Your task to perform on an android device: Open settings on Google Maps Image 0: 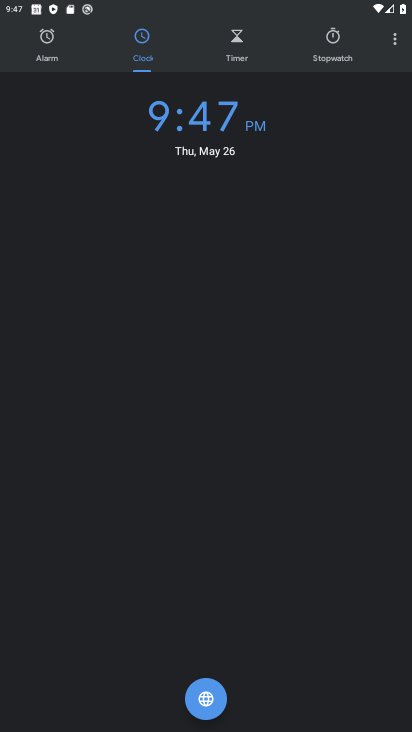
Step 0: press back button
Your task to perform on an android device: Open settings on Google Maps Image 1: 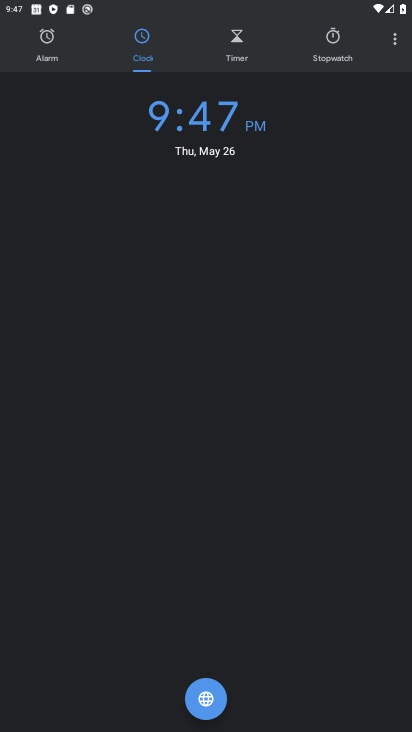
Step 1: press back button
Your task to perform on an android device: Open settings on Google Maps Image 2: 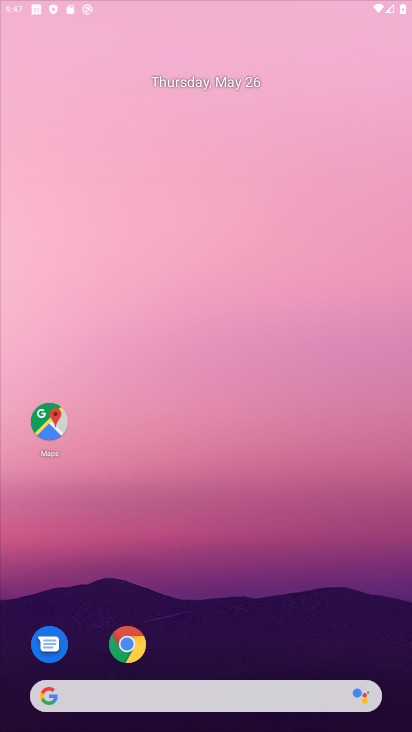
Step 2: press back button
Your task to perform on an android device: Open settings on Google Maps Image 3: 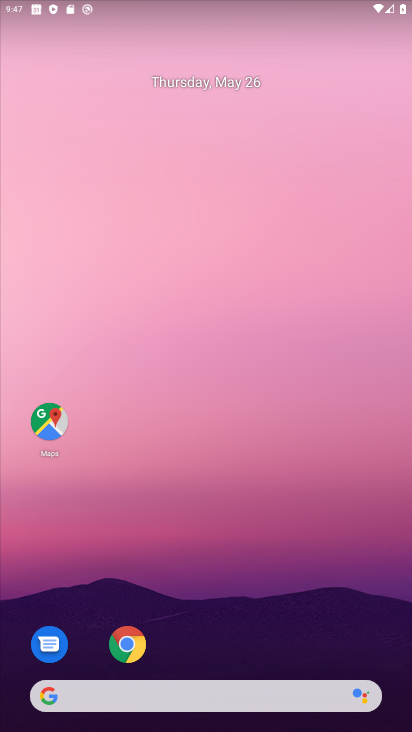
Step 3: drag from (302, 672) to (283, 44)
Your task to perform on an android device: Open settings on Google Maps Image 4: 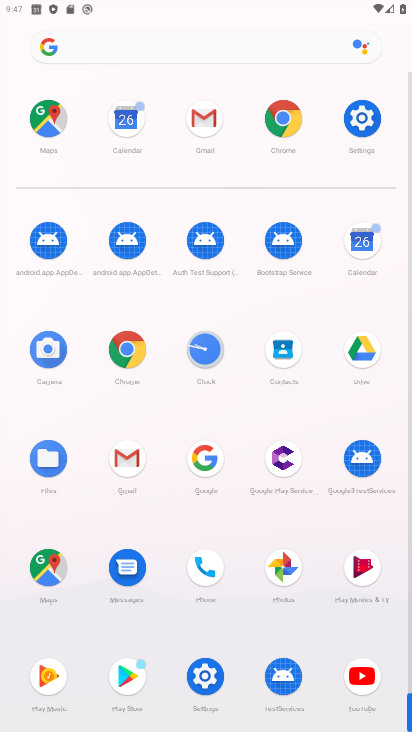
Step 4: click (51, 556)
Your task to perform on an android device: Open settings on Google Maps Image 5: 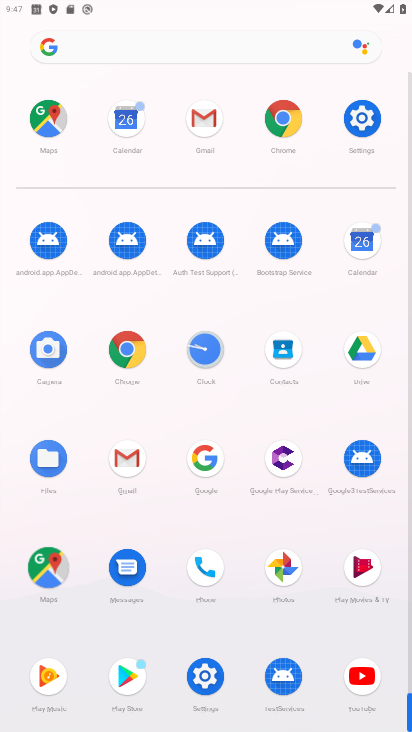
Step 5: click (53, 559)
Your task to perform on an android device: Open settings on Google Maps Image 6: 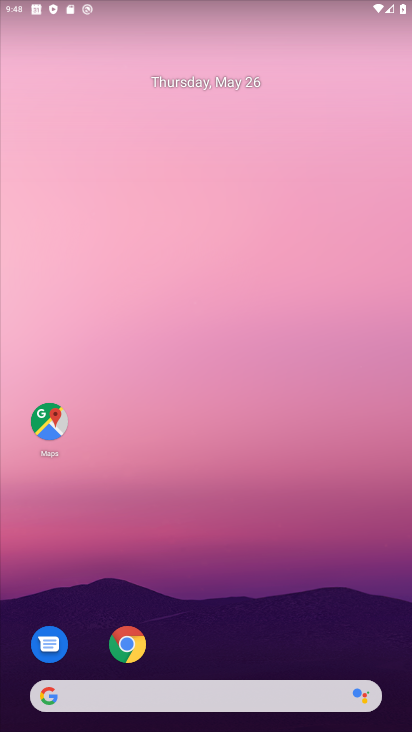
Step 6: drag from (265, 656) to (211, 258)
Your task to perform on an android device: Open settings on Google Maps Image 7: 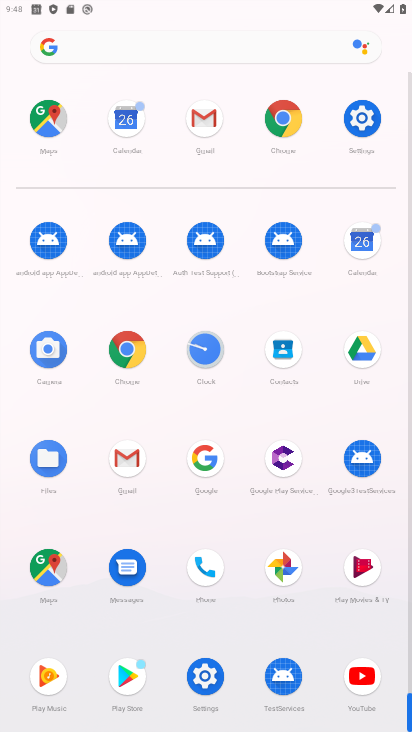
Step 7: click (46, 108)
Your task to perform on an android device: Open settings on Google Maps Image 8: 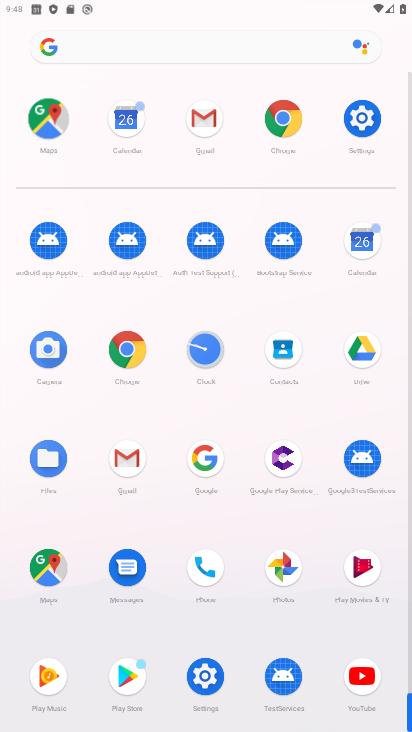
Step 8: click (47, 121)
Your task to perform on an android device: Open settings on Google Maps Image 9: 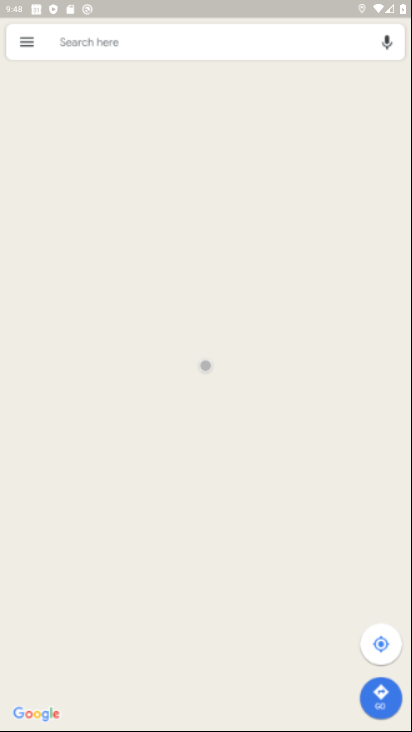
Step 9: click (58, 149)
Your task to perform on an android device: Open settings on Google Maps Image 10: 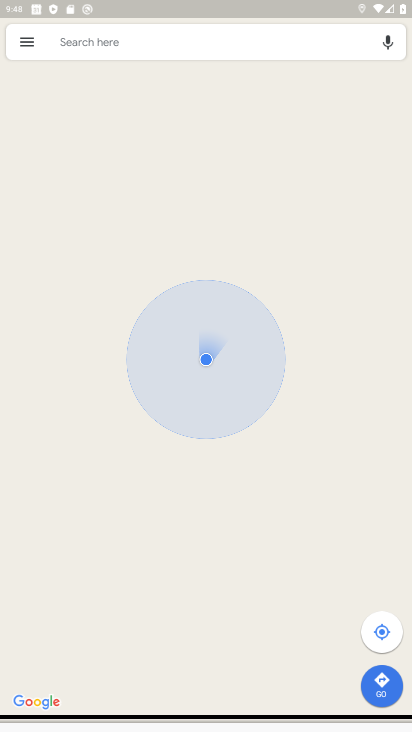
Step 10: drag from (24, 47) to (94, 147)
Your task to perform on an android device: Open settings on Google Maps Image 11: 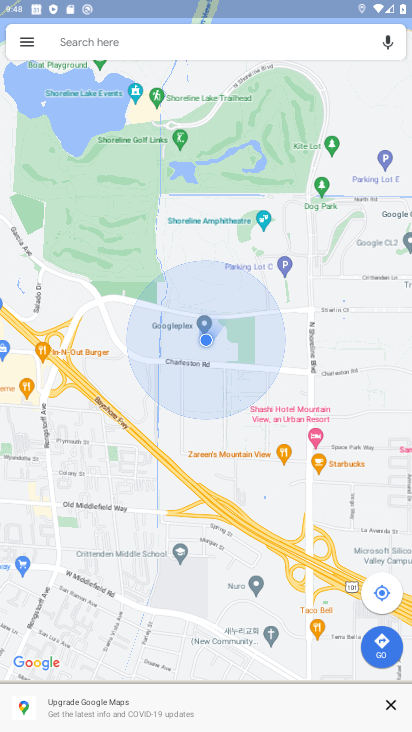
Step 11: click (27, 45)
Your task to perform on an android device: Open settings on Google Maps Image 12: 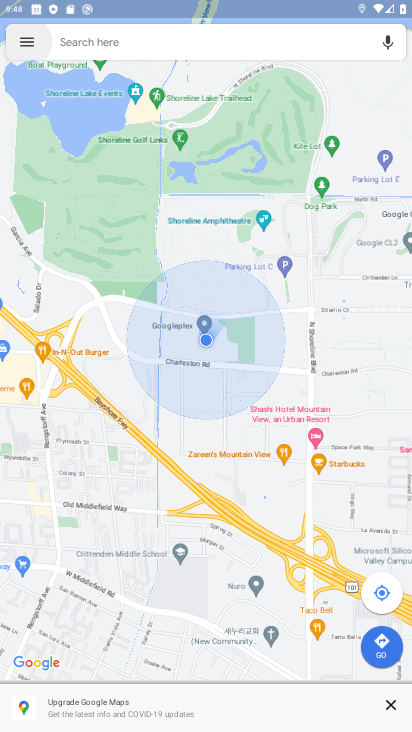
Step 12: click (37, 43)
Your task to perform on an android device: Open settings on Google Maps Image 13: 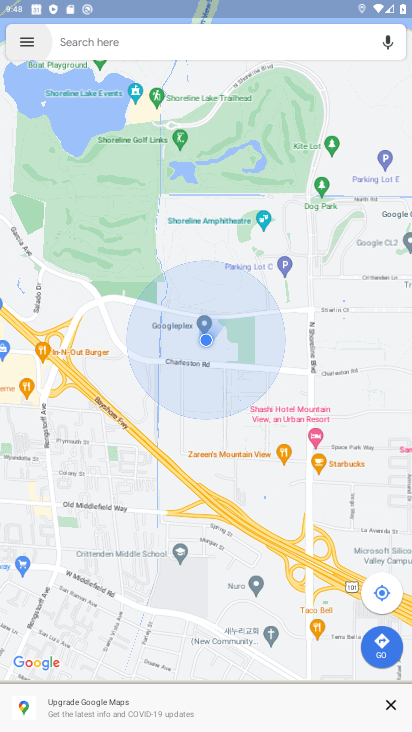
Step 13: click (33, 53)
Your task to perform on an android device: Open settings on Google Maps Image 14: 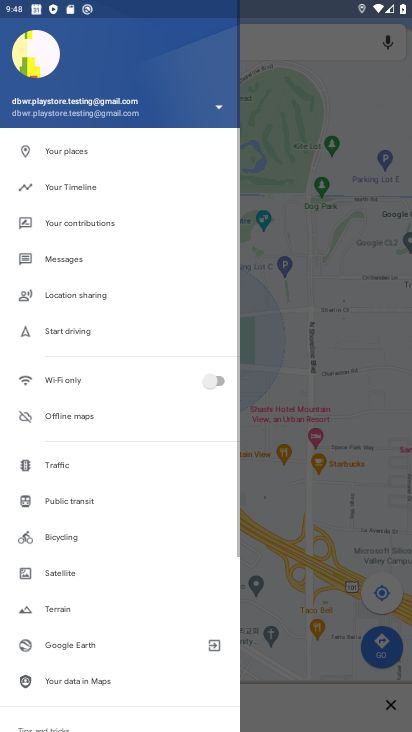
Step 14: click (22, 60)
Your task to perform on an android device: Open settings on Google Maps Image 15: 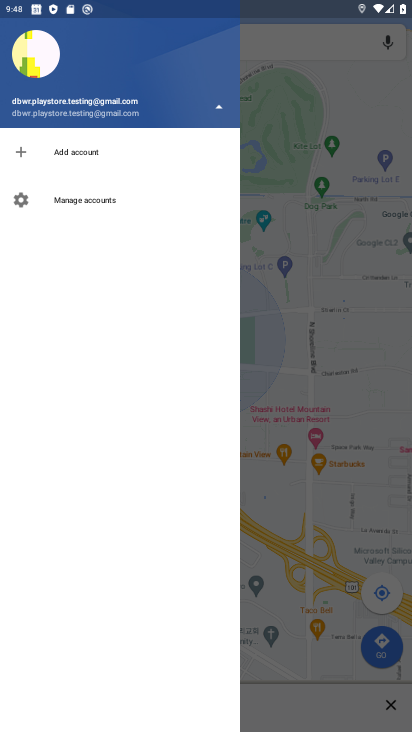
Step 15: click (215, 108)
Your task to perform on an android device: Open settings on Google Maps Image 16: 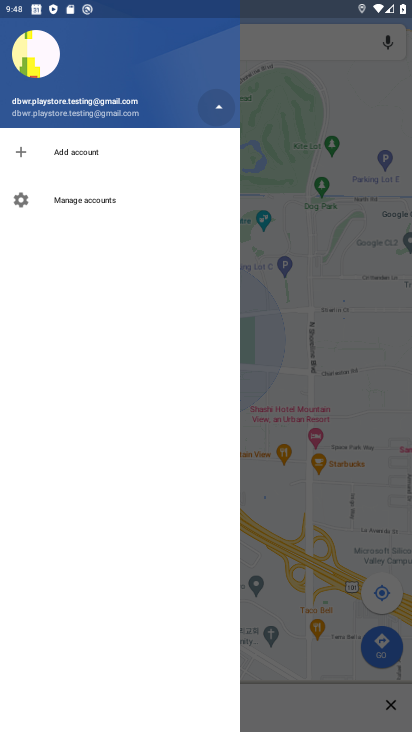
Step 16: click (216, 108)
Your task to perform on an android device: Open settings on Google Maps Image 17: 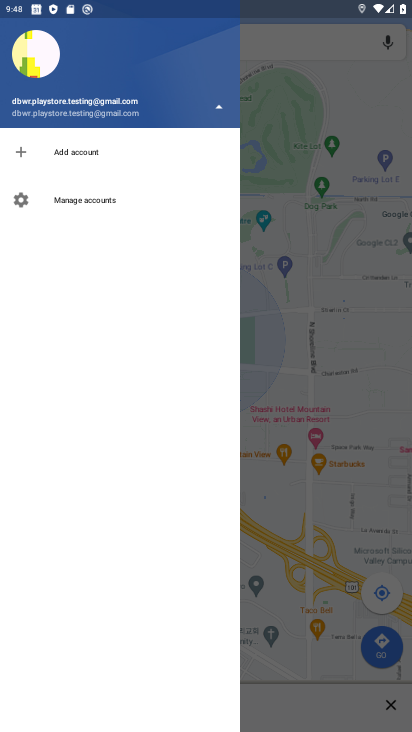
Step 17: click (217, 104)
Your task to perform on an android device: Open settings on Google Maps Image 18: 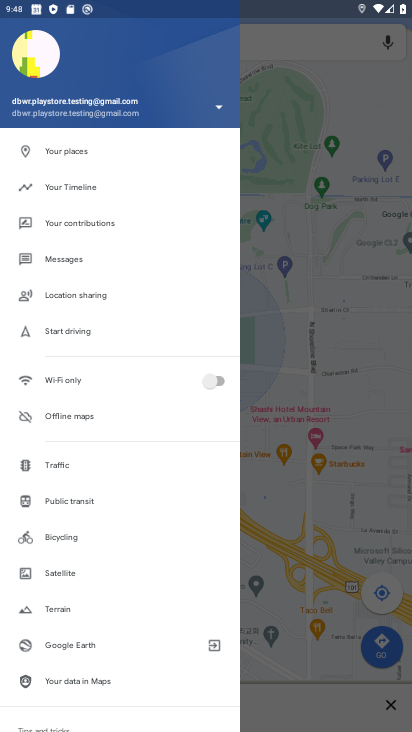
Step 18: click (87, 190)
Your task to perform on an android device: Open settings on Google Maps Image 19: 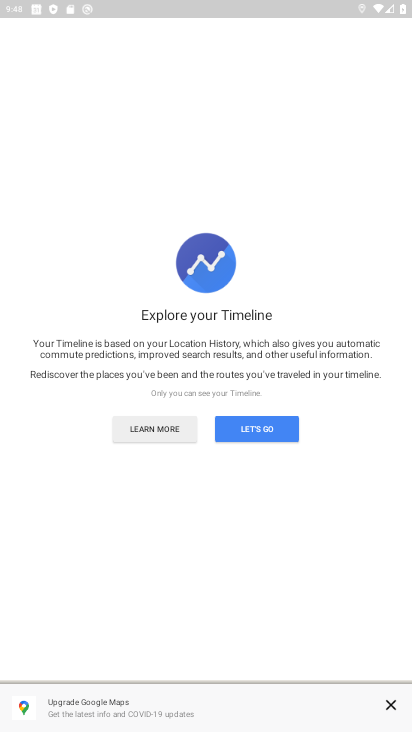
Step 19: click (273, 435)
Your task to perform on an android device: Open settings on Google Maps Image 20: 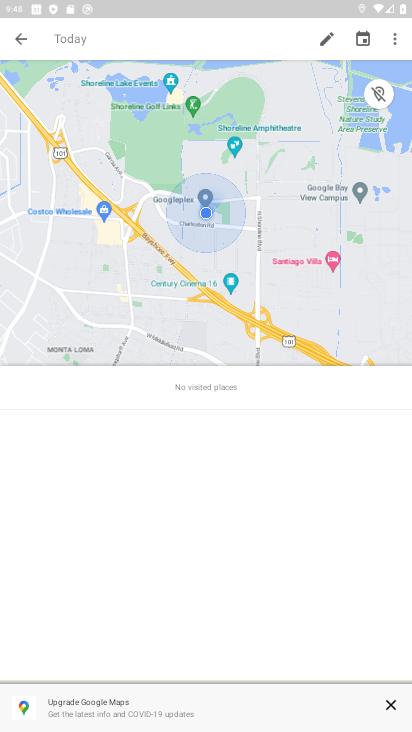
Step 20: drag from (388, 42) to (314, 470)
Your task to perform on an android device: Open settings on Google Maps Image 21: 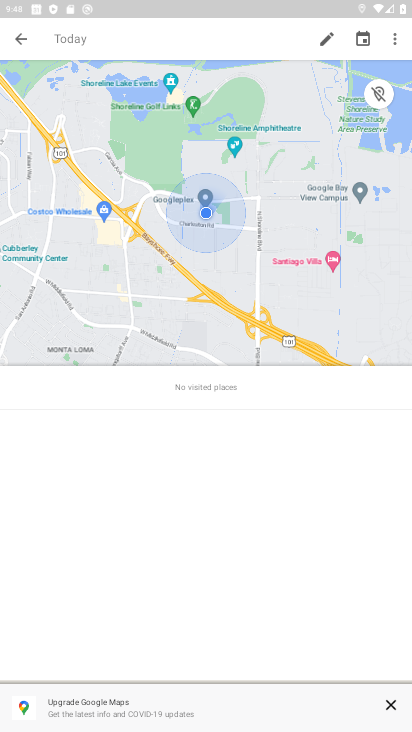
Step 21: click (393, 34)
Your task to perform on an android device: Open settings on Google Maps Image 22: 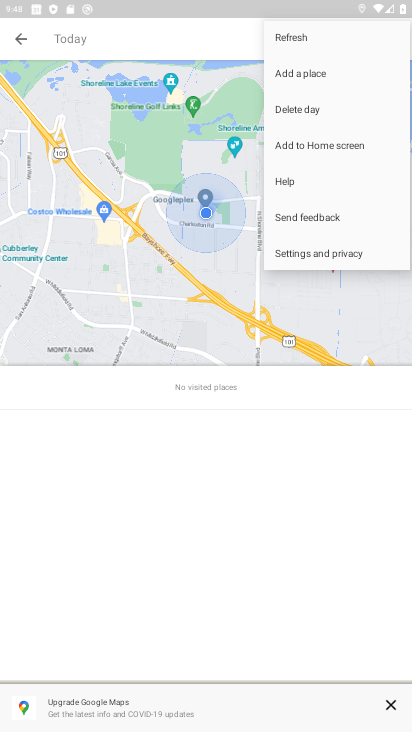
Step 22: click (394, 33)
Your task to perform on an android device: Open settings on Google Maps Image 23: 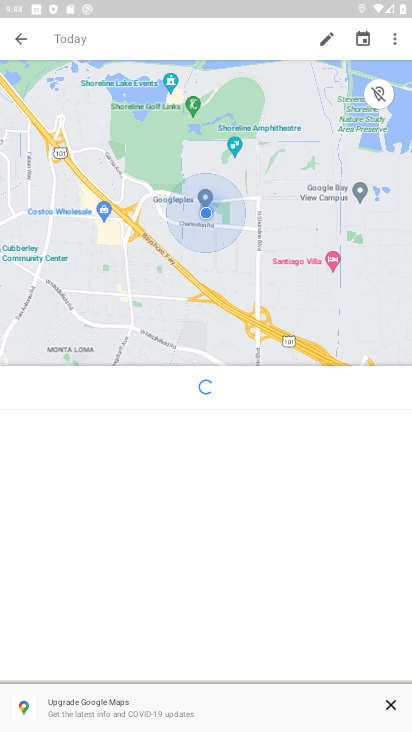
Step 23: click (316, 257)
Your task to perform on an android device: Open settings on Google Maps Image 24: 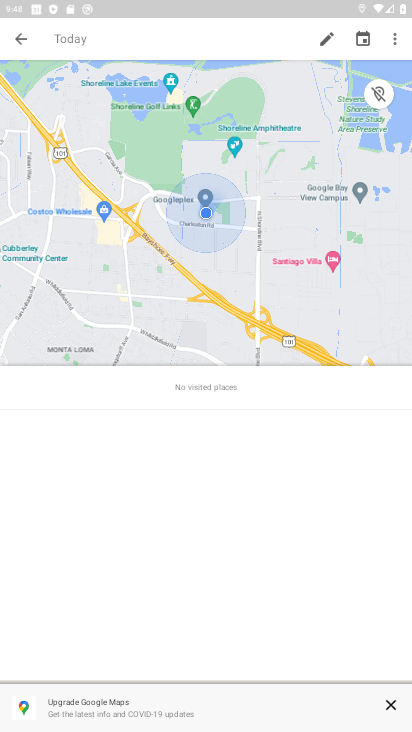
Step 24: click (316, 257)
Your task to perform on an android device: Open settings on Google Maps Image 25: 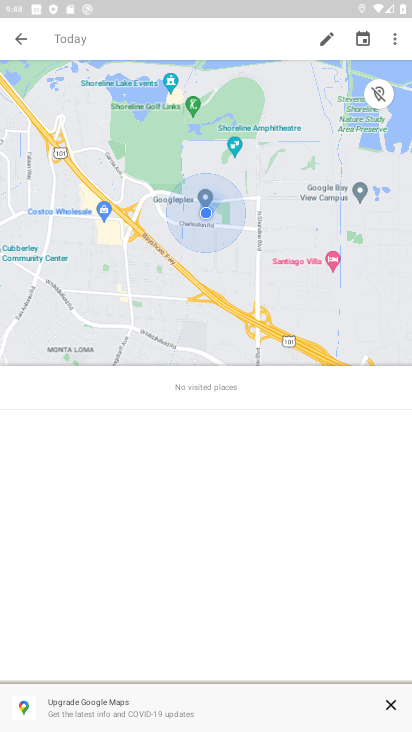
Step 25: click (393, 37)
Your task to perform on an android device: Open settings on Google Maps Image 26: 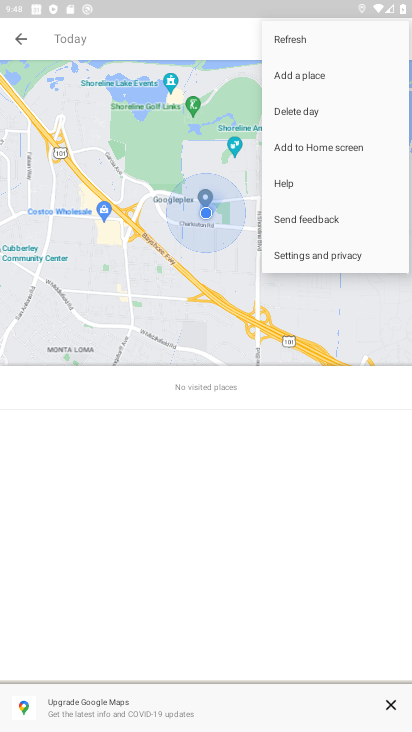
Step 26: click (309, 255)
Your task to perform on an android device: Open settings on Google Maps Image 27: 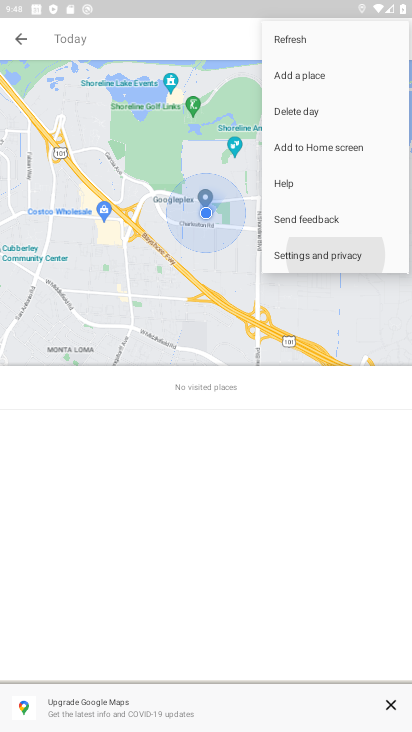
Step 27: click (311, 253)
Your task to perform on an android device: Open settings on Google Maps Image 28: 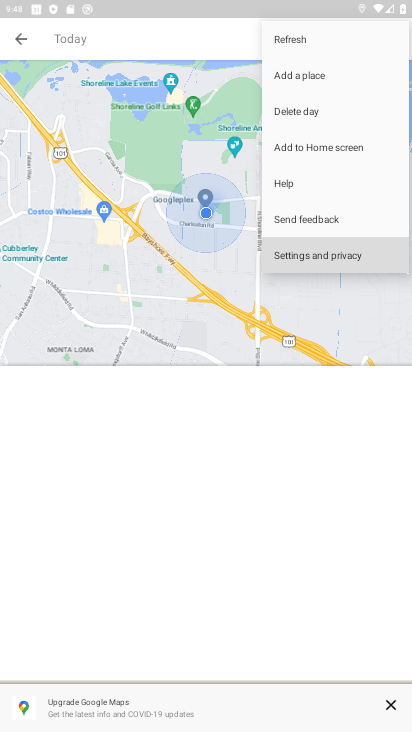
Step 28: click (311, 253)
Your task to perform on an android device: Open settings on Google Maps Image 29: 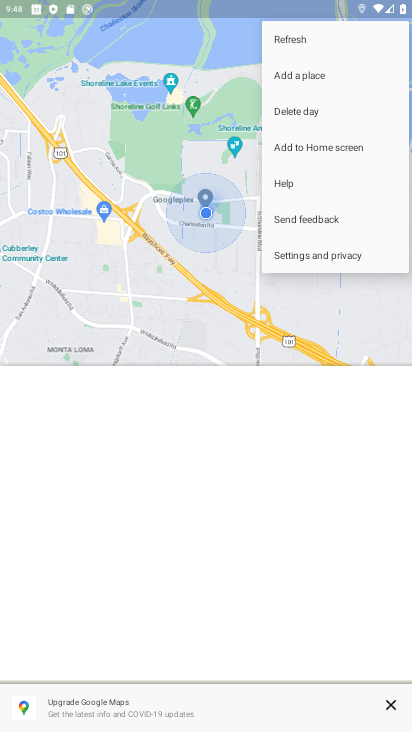
Step 29: click (311, 251)
Your task to perform on an android device: Open settings on Google Maps Image 30: 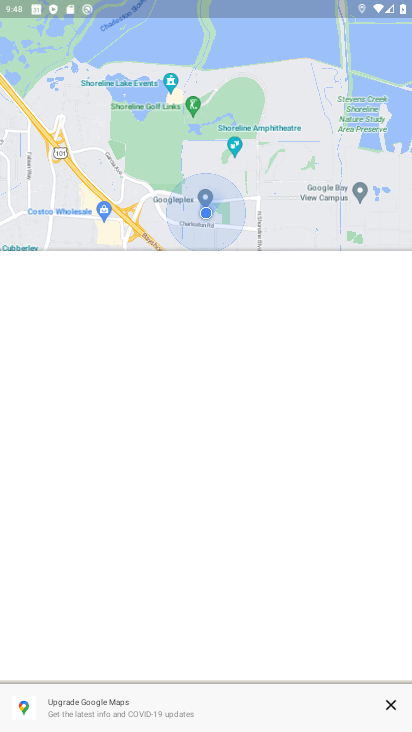
Step 30: click (310, 250)
Your task to perform on an android device: Open settings on Google Maps Image 31: 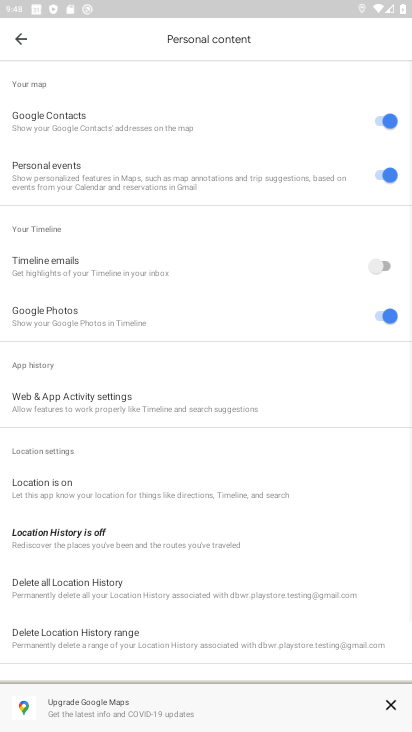
Step 31: task complete